Your task to perform on an android device: Empty the shopping cart on bestbuy. Search for "beats solo 3" on bestbuy, select the first entry, and add it to the cart. Image 0: 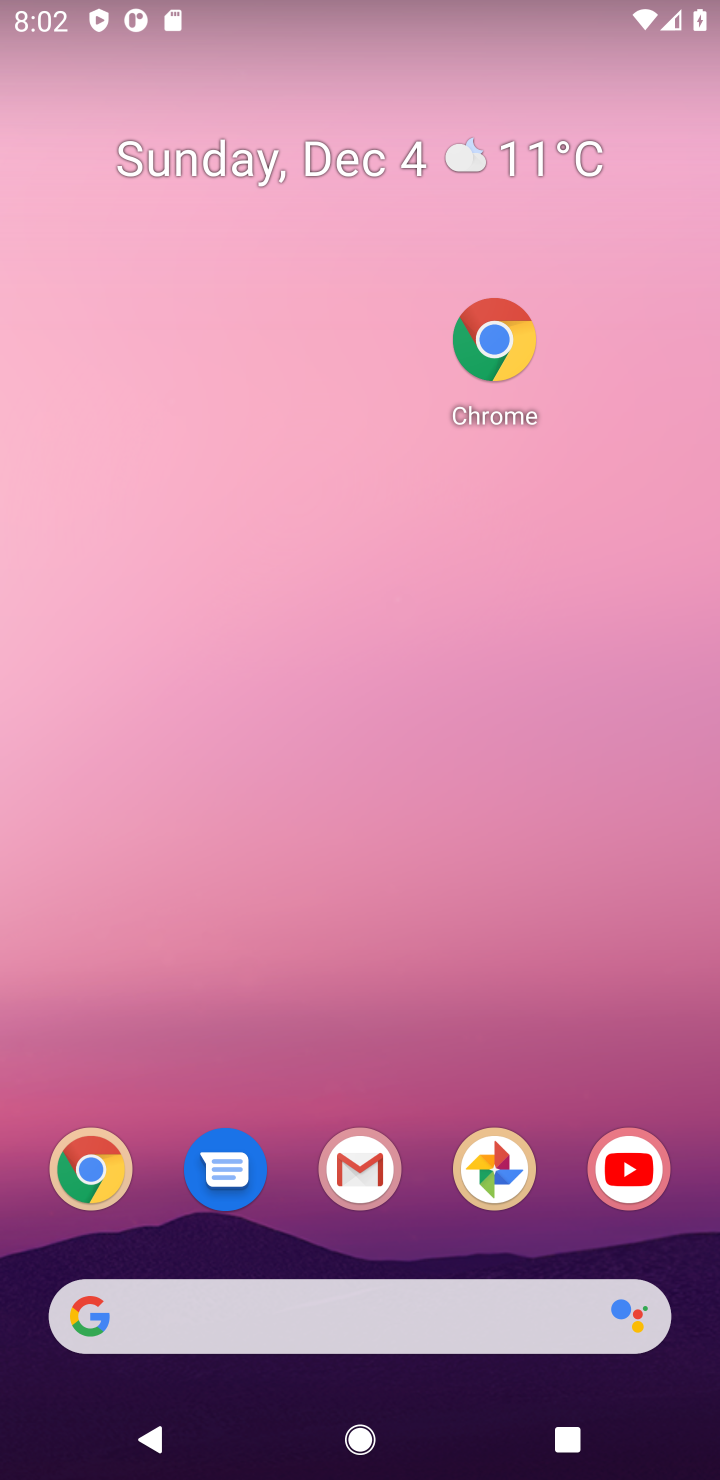
Step 0: drag from (466, 1399) to (635, 53)
Your task to perform on an android device: Empty the shopping cart on bestbuy. Search for "beats solo 3" on bestbuy, select the first entry, and add it to the cart. Image 1: 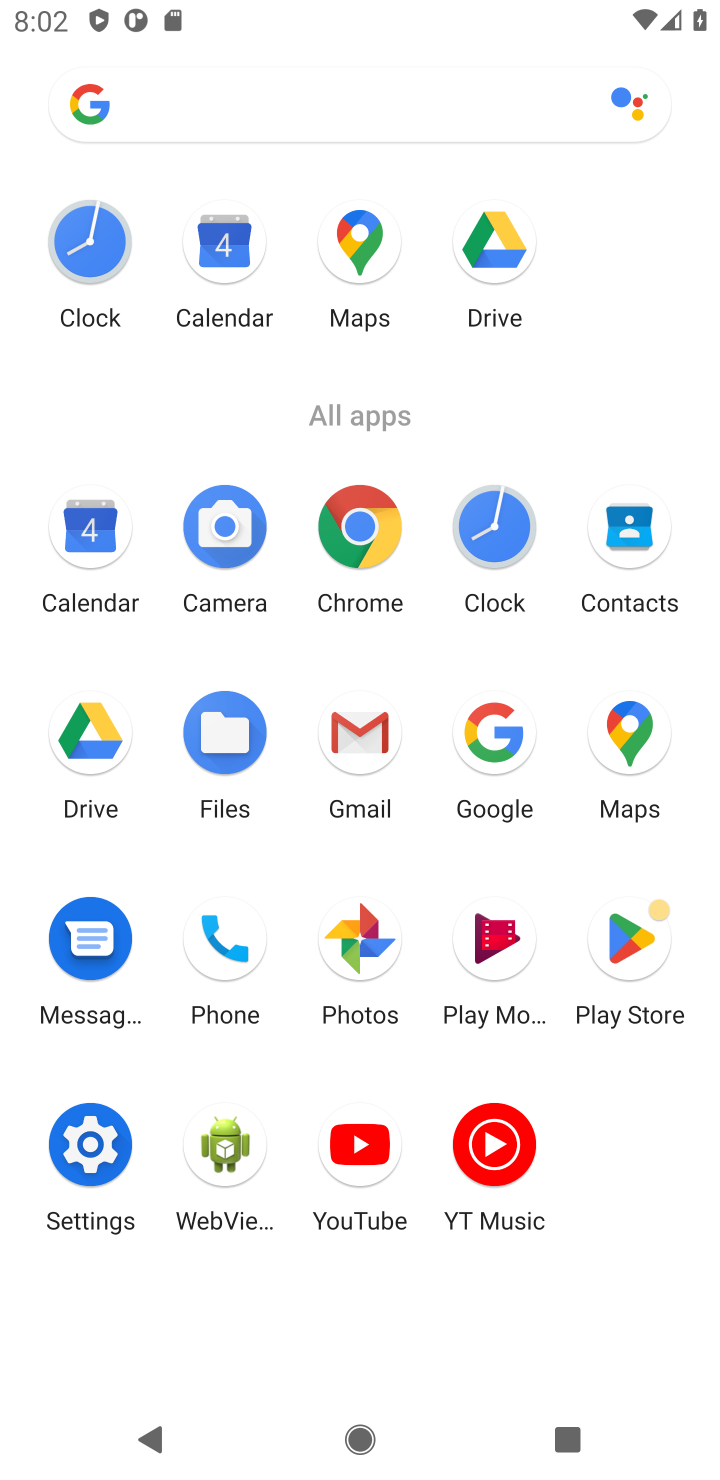
Step 1: click (362, 516)
Your task to perform on an android device: Empty the shopping cart on bestbuy. Search for "beats solo 3" on bestbuy, select the first entry, and add it to the cart. Image 2: 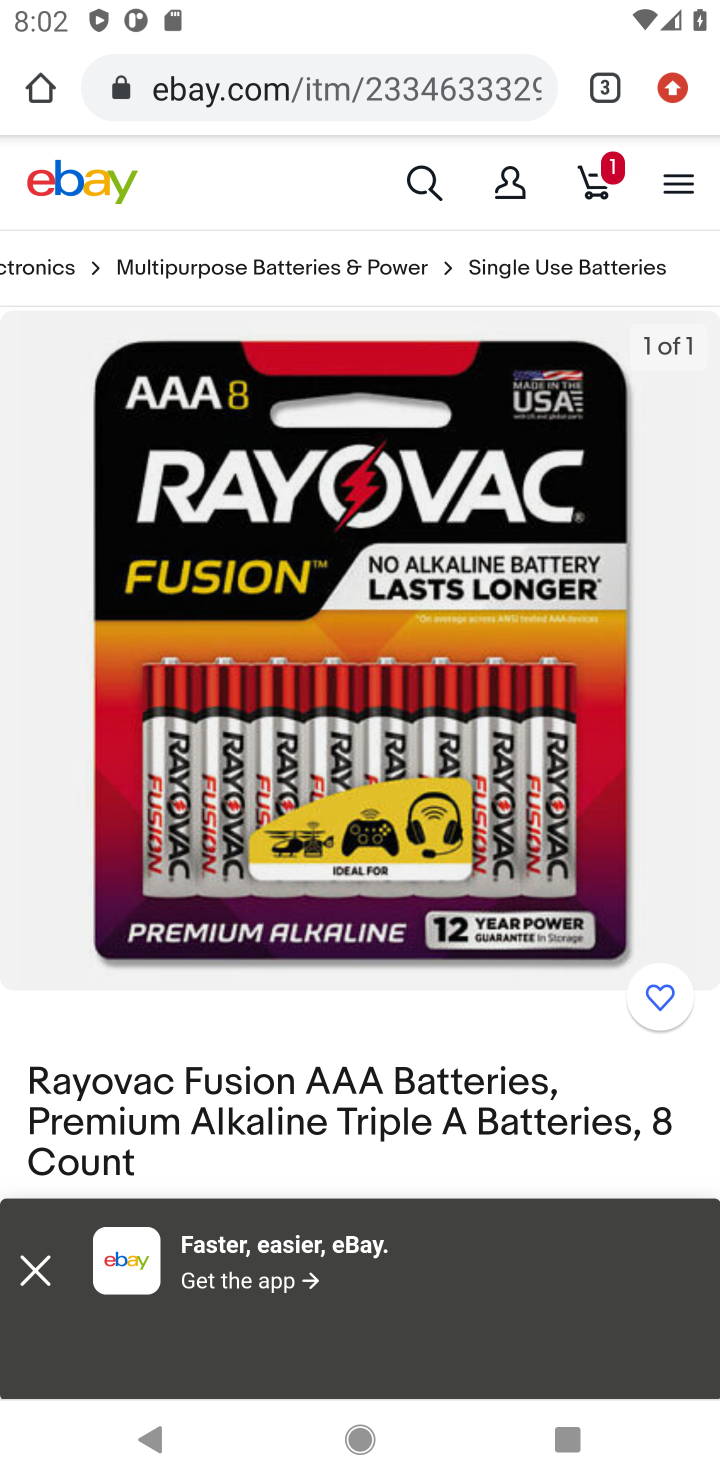
Step 2: click (361, 91)
Your task to perform on an android device: Empty the shopping cart on bestbuy. Search for "beats solo 3" on bestbuy, select the first entry, and add it to the cart. Image 3: 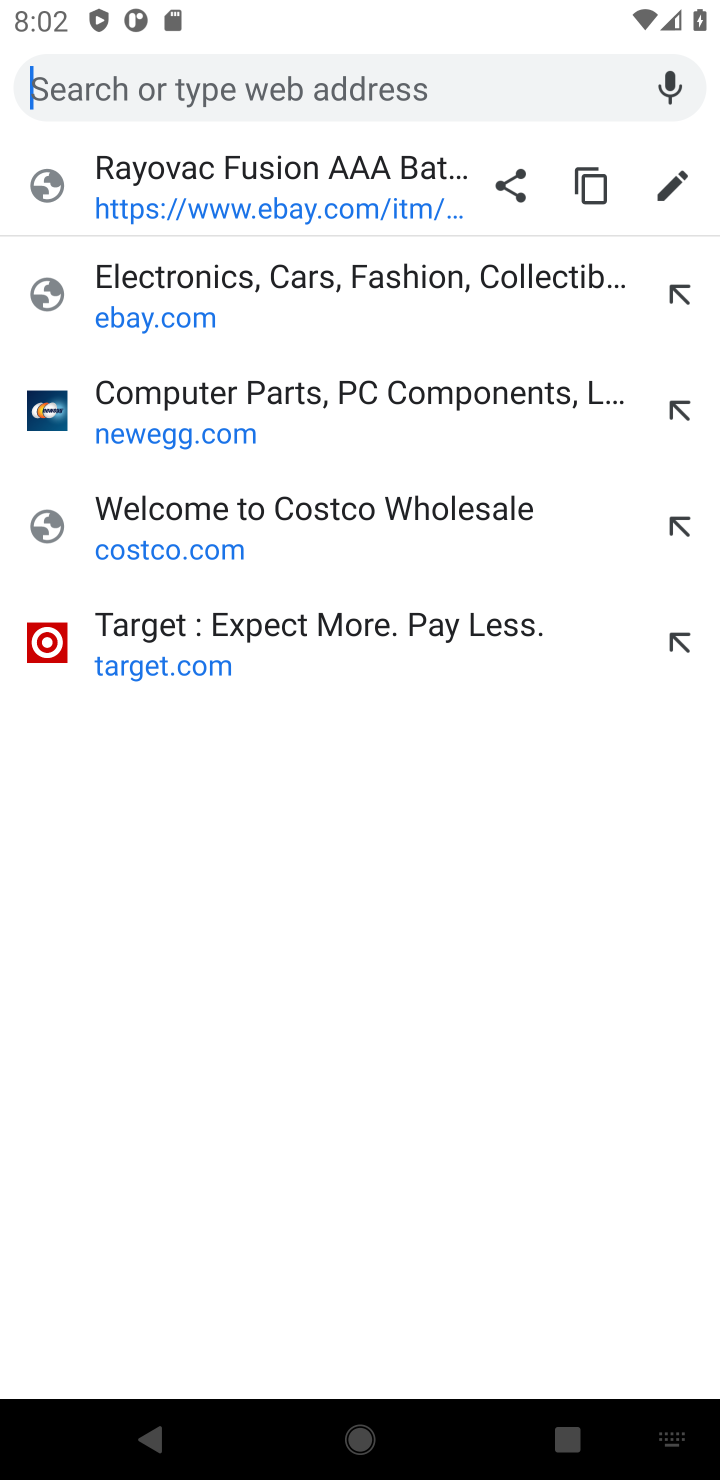
Step 3: type " bestbuy"
Your task to perform on an android device: Empty the shopping cart on bestbuy. Search for "beats solo 3" on bestbuy, select the first entry, and add it to the cart. Image 4: 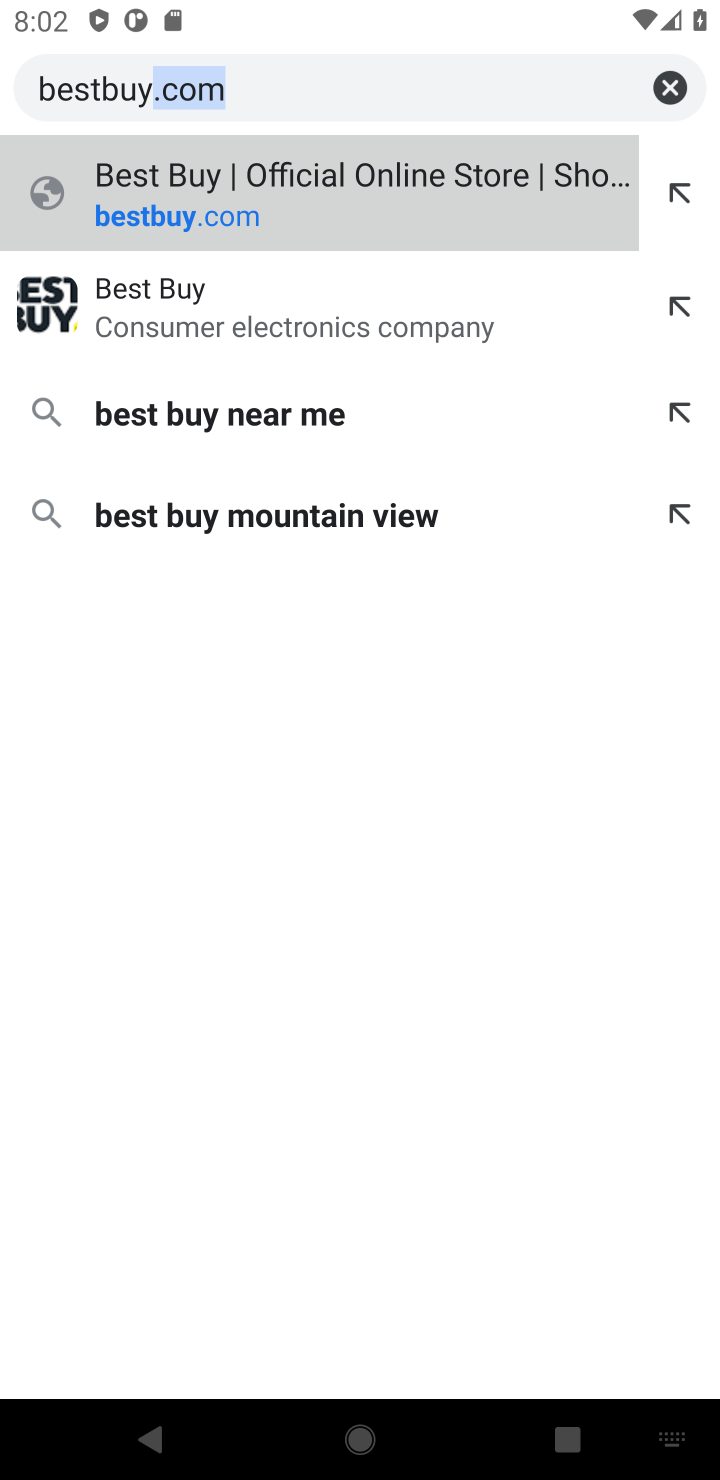
Step 4: type ""
Your task to perform on an android device: Empty the shopping cart on bestbuy. Search for "beats solo 3" on bestbuy, select the first entry, and add it to the cart. Image 5: 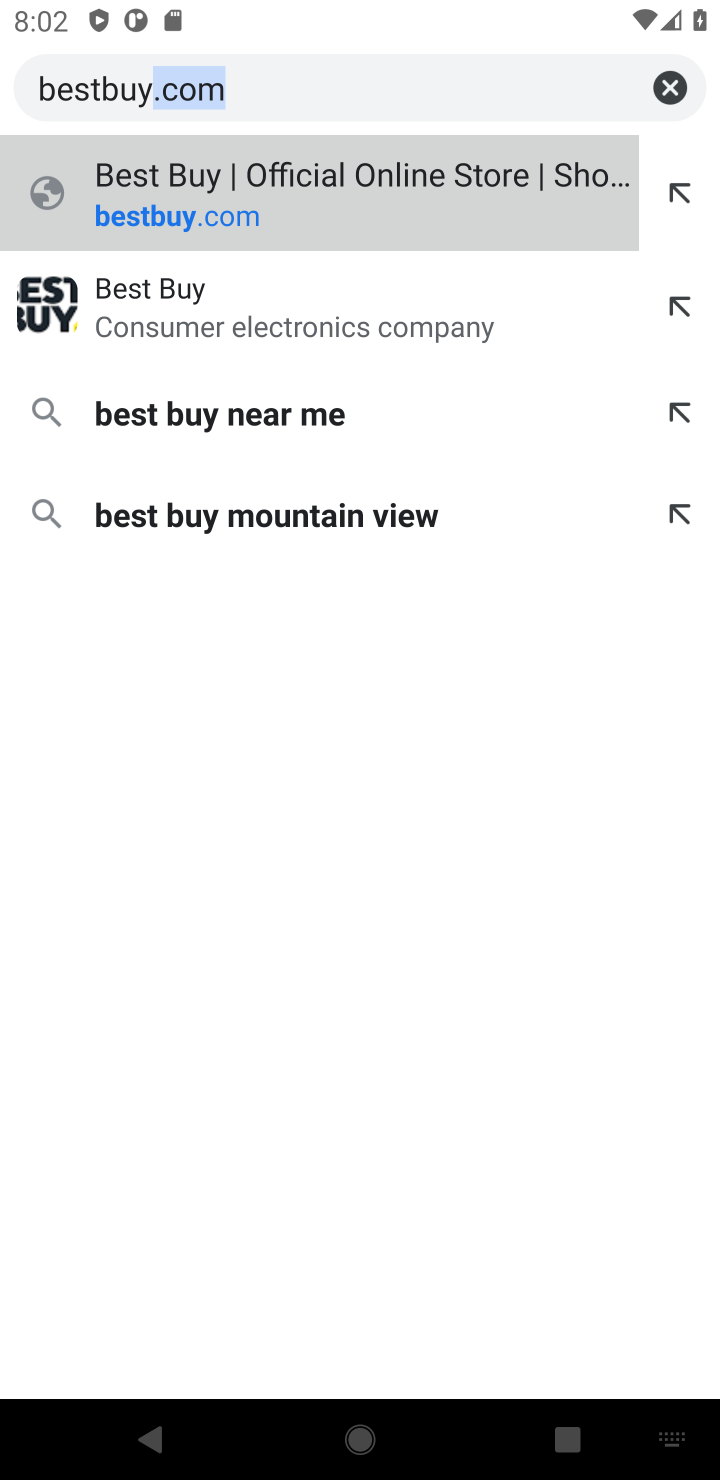
Step 5: click (211, 211)
Your task to perform on an android device: Empty the shopping cart on bestbuy. Search for "beats solo 3" on bestbuy, select the first entry, and add it to the cart. Image 6: 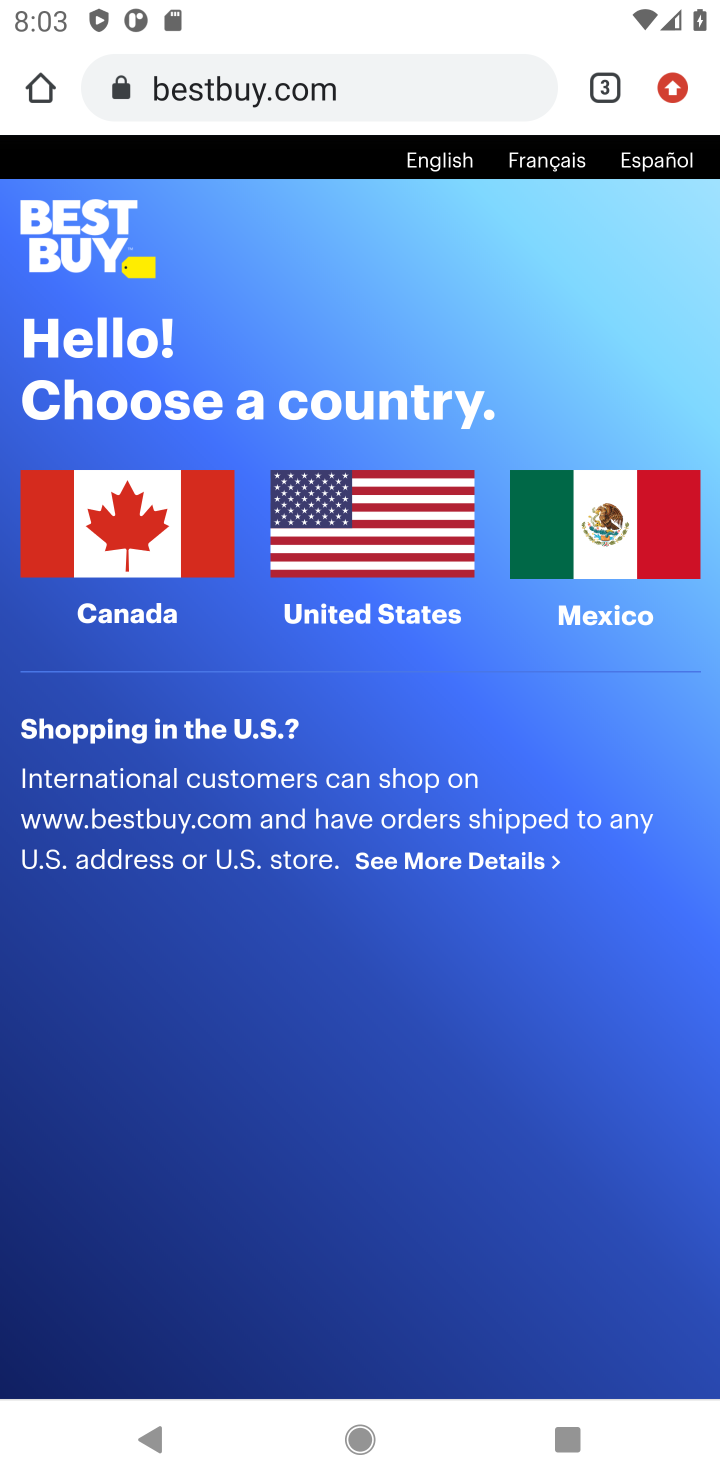
Step 6: click (445, 545)
Your task to perform on an android device: Empty the shopping cart on bestbuy. Search for "beats solo 3" on bestbuy, select the first entry, and add it to the cart. Image 7: 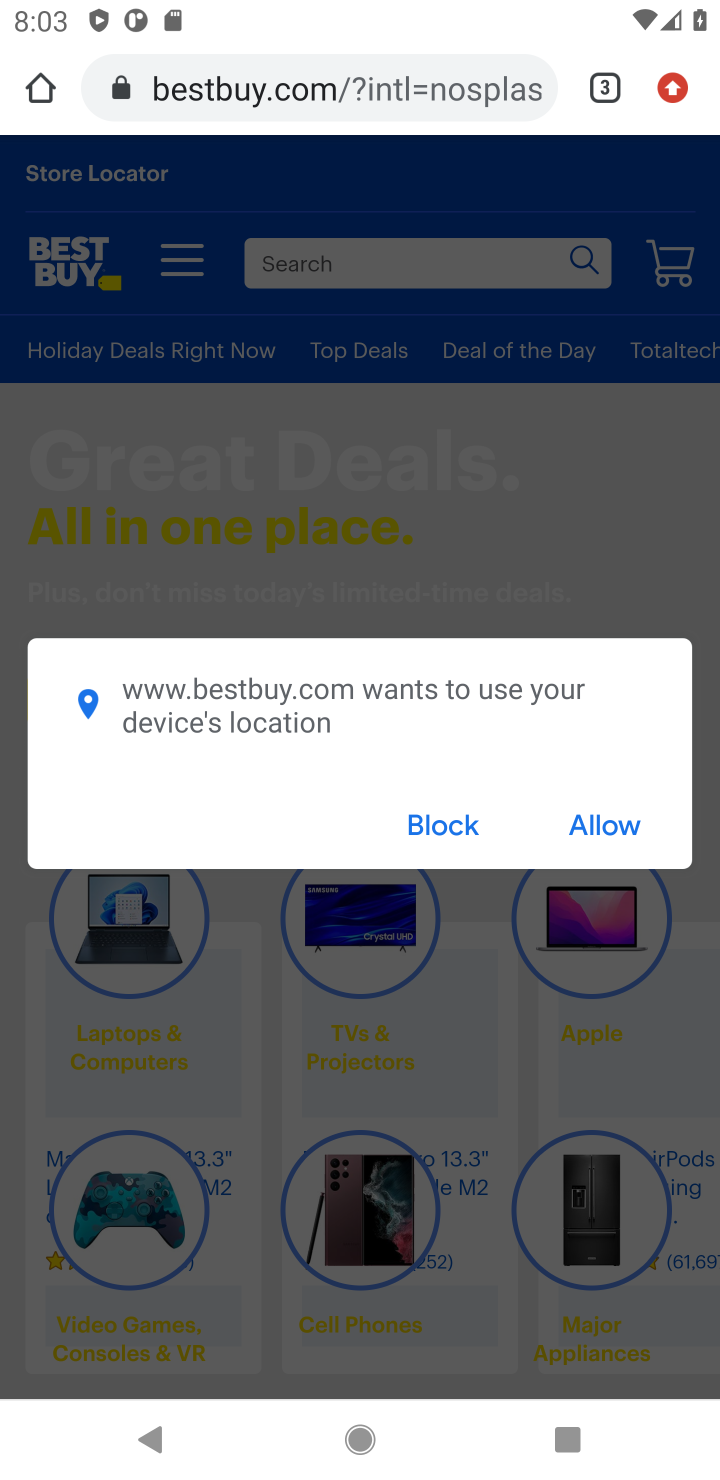
Step 7: click (609, 812)
Your task to perform on an android device: Empty the shopping cart on bestbuy. Search for "beats solo 3" on bestbuy, select the first entry, and add it to the cart. Image 8: 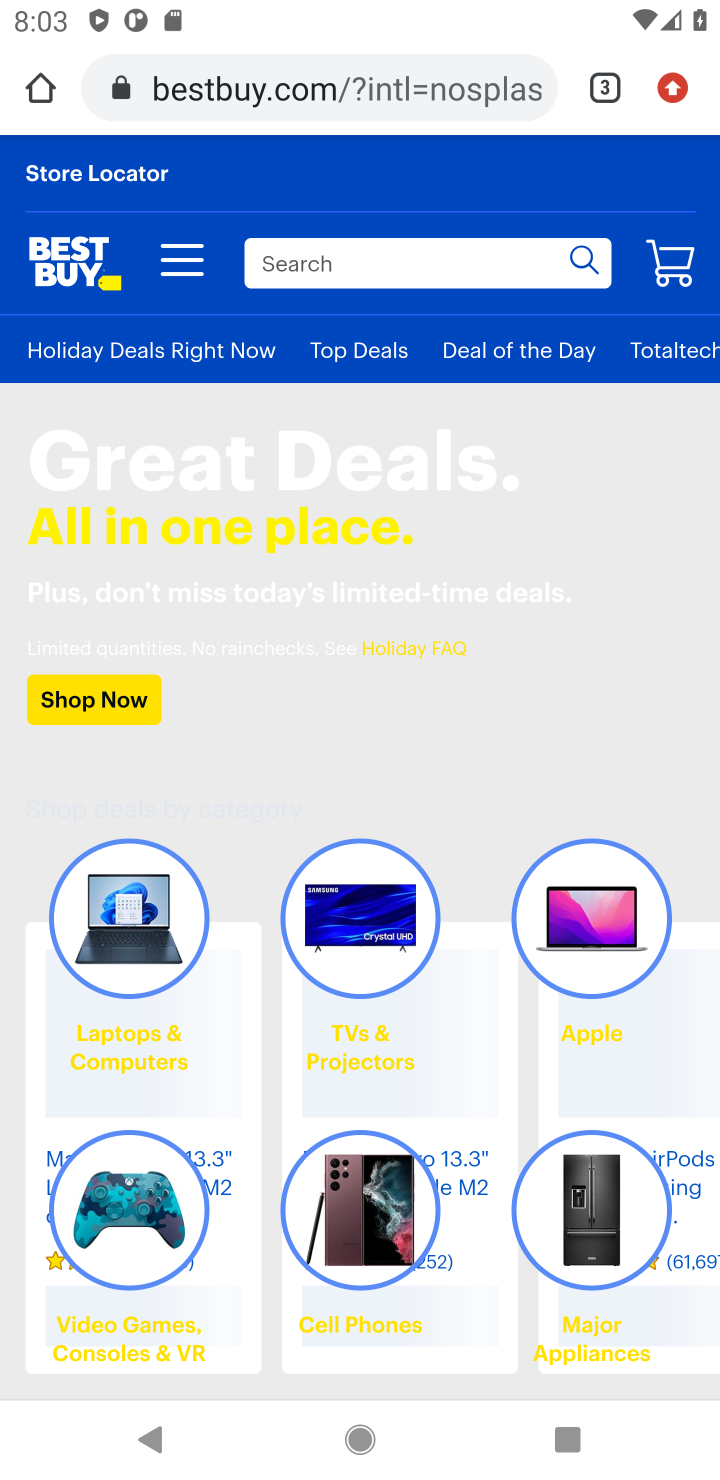
Step 8: click (676, 274)
Your task to perform on an android device: Empty the shopping cart on bestbuy. Search for "beats solo 3" on bestbuy, select the first entry, and add it to the cart. Image 9: 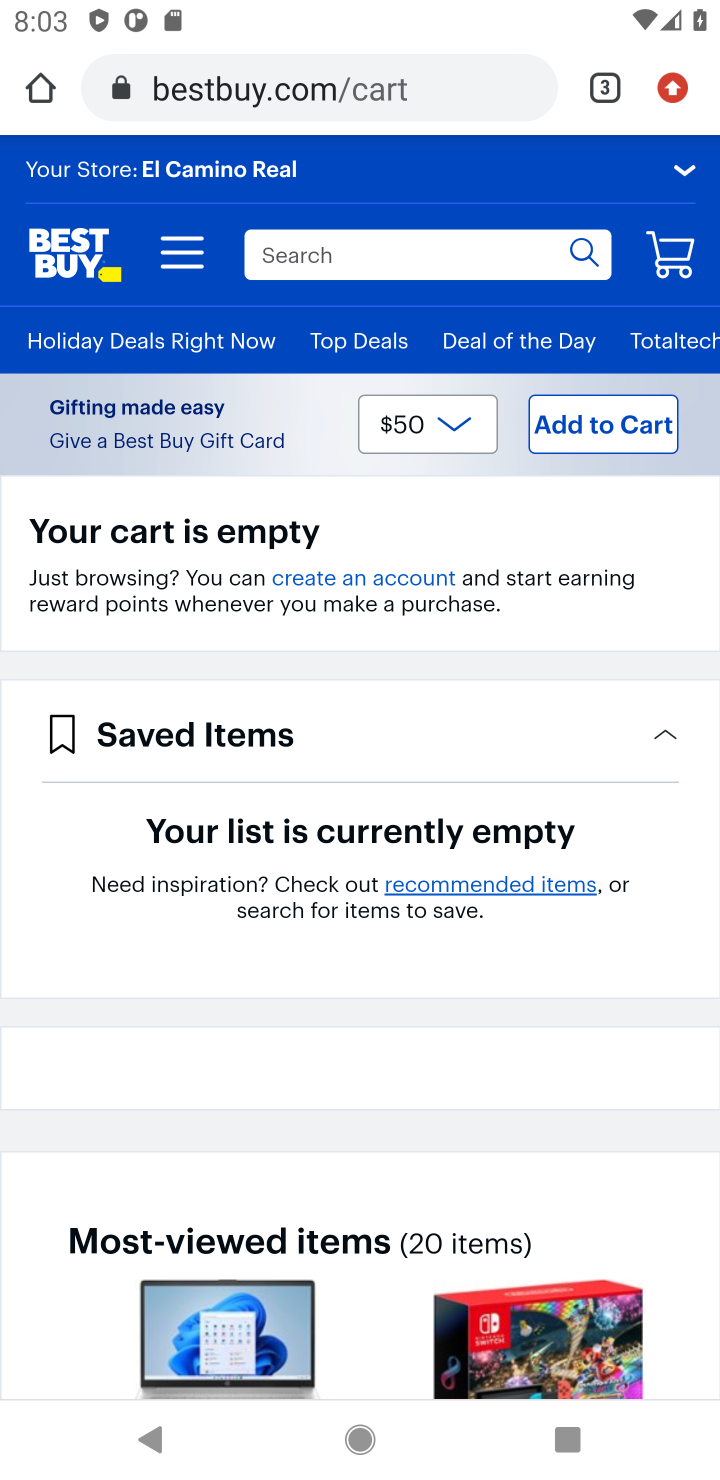
Step 9: drag from (404, 1102) to (404, 594)
Your task to perform on an android device: Empty the shopping cart on bestbuy. Search for "beats solo 3" on bestbuy, select the first entry, and add it to the cart. Image 10: 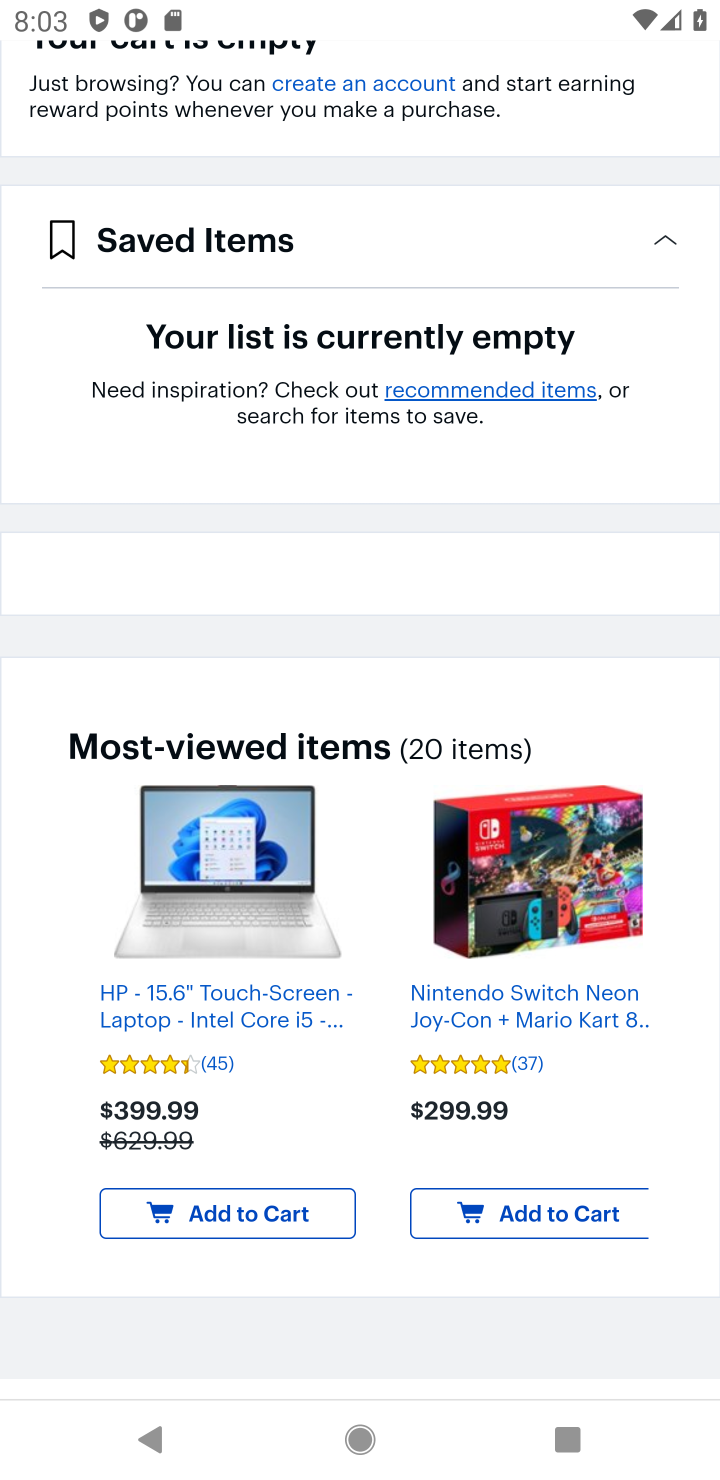
Step 10: drag from (357, 442) to (354, 1108)
Your task to perform on an android device: Empty the shopping cart on bestbuy. Search for "beats solo 3" on bestbuy, select the first entry, and add it to the cart. Image 11: 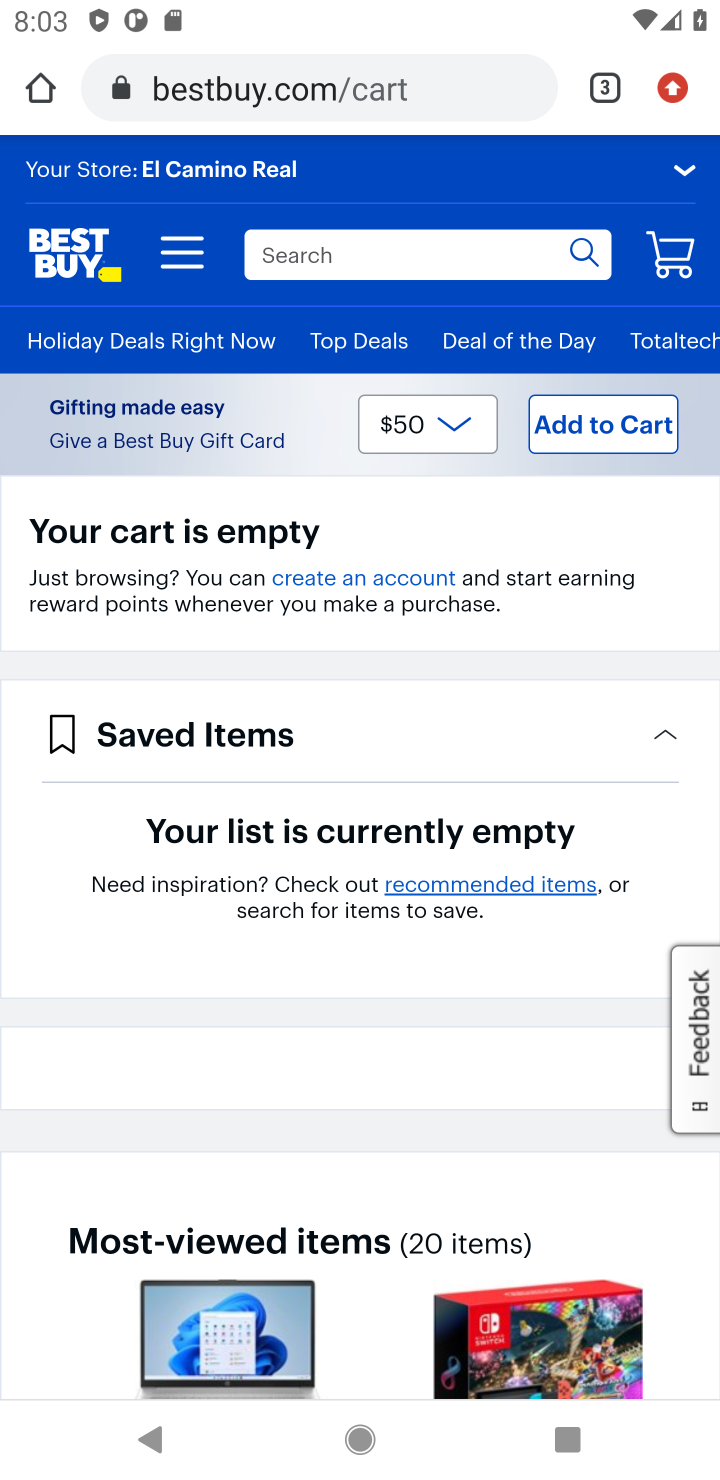
Step 11: click (364, 260)
Your task to perform on an android device: Empty the shopping cart on bestbuy. Search for "beats solo 3" on bestbuy, select the first entry, and add it to the cart. Image 12: 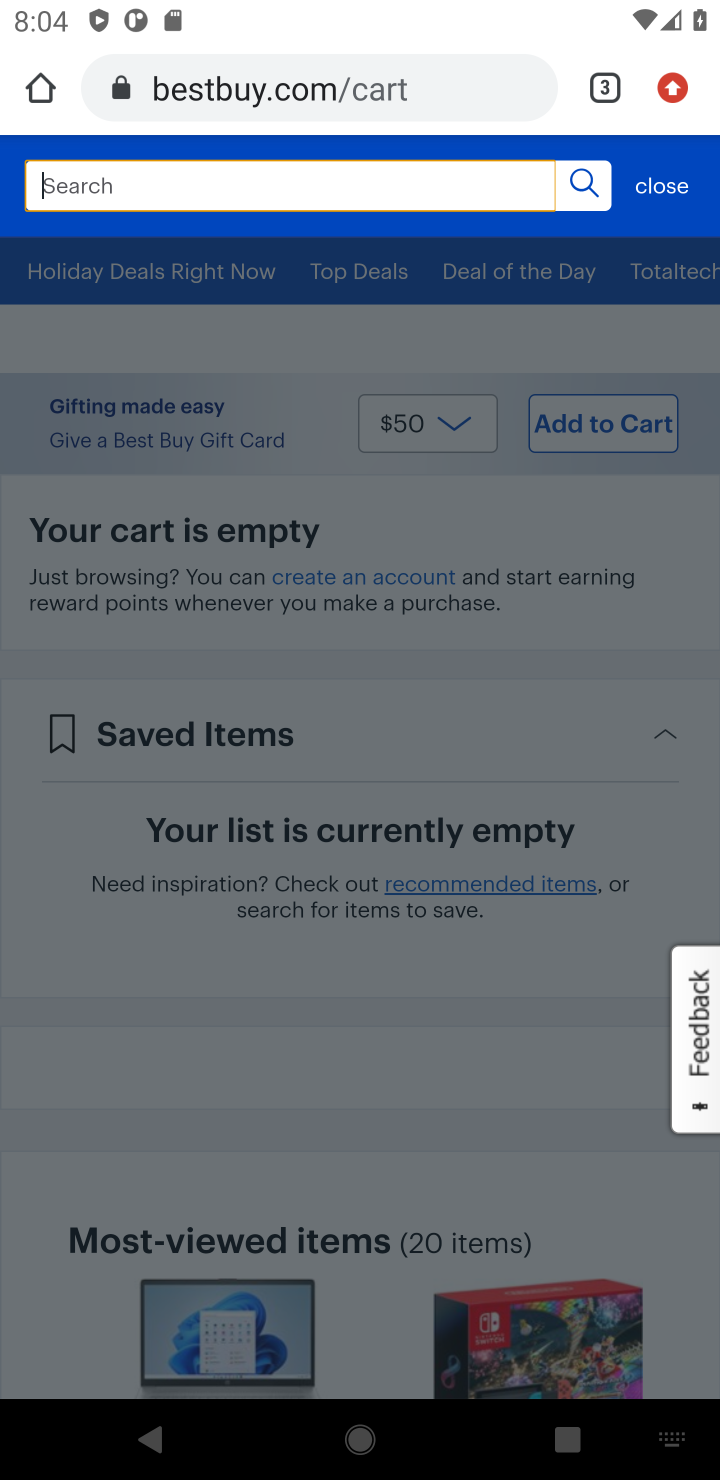
Step 12: type "beats solo 3"
Your task to perform on an android device: Empty the shopping cart on bestbuy. Search for "beats solo 3" on bestbuy, select the first entry, and add it to the cart. Image 13: 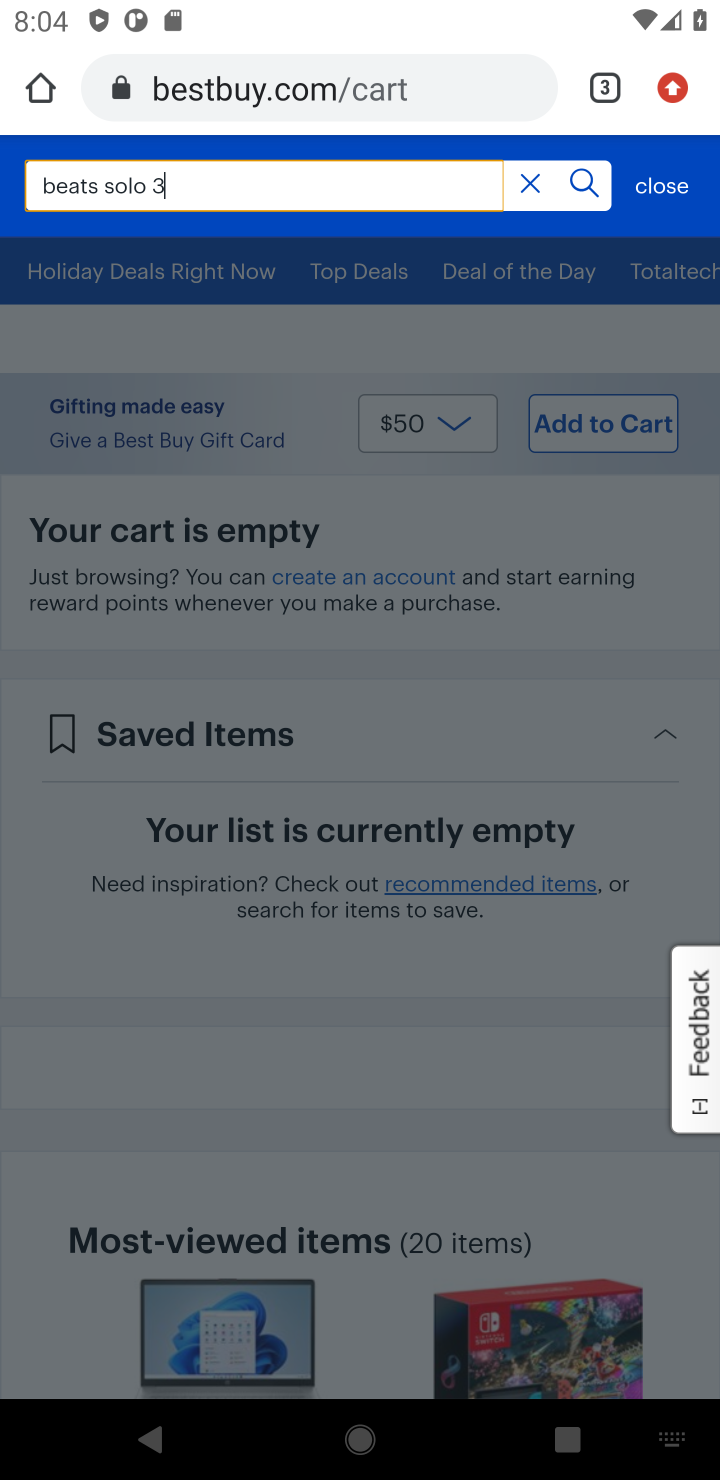
Step 13: type ""
Your task to perform on an android device: Empty the shopping cart on bestbuy. Search for "beats solo 3" on bestbuy, select the first entry, and add it to the cart. Image 14: 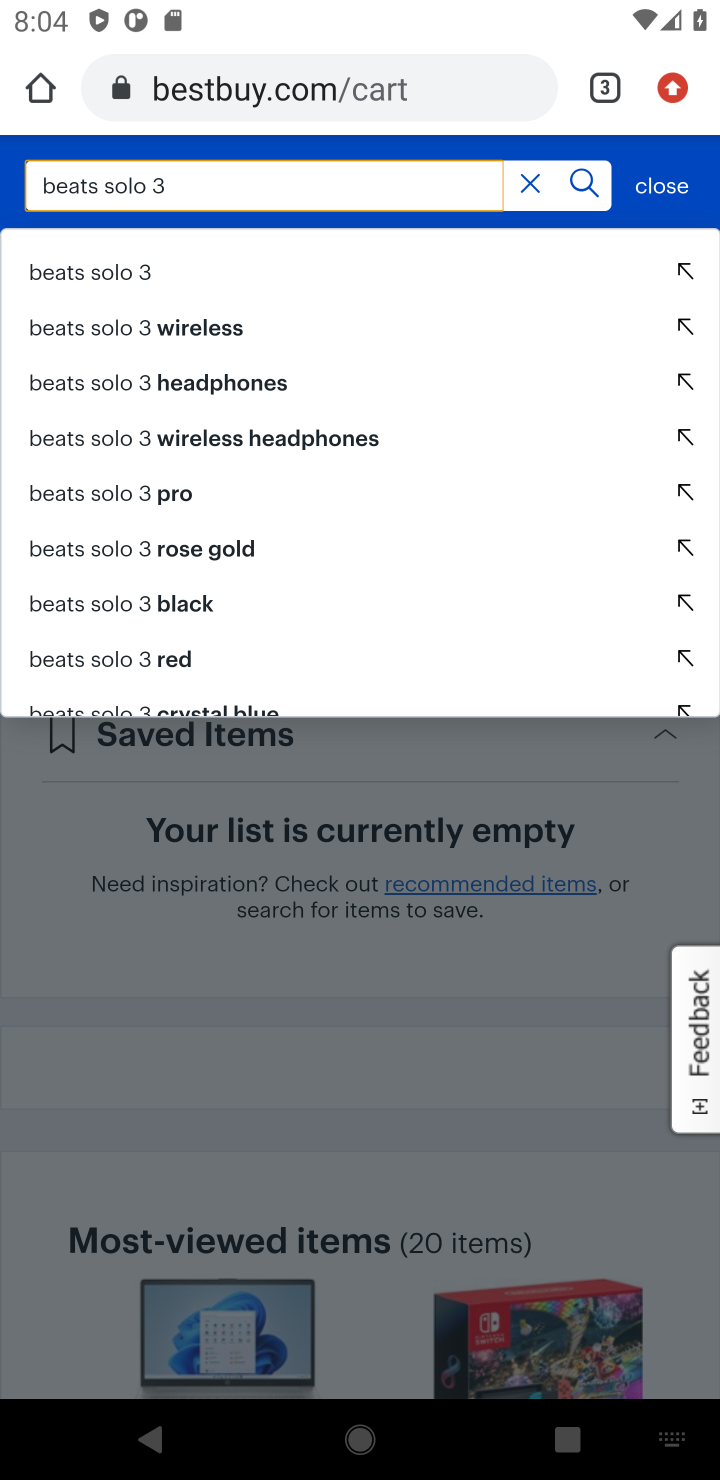
Step 14: click (85, 266)
Your task to perform on an android device: Empty the shopping cart on bestbuy. Search for "beats solo 3" on bestbuy, select the first entry, and add it to the cart. Image 15: 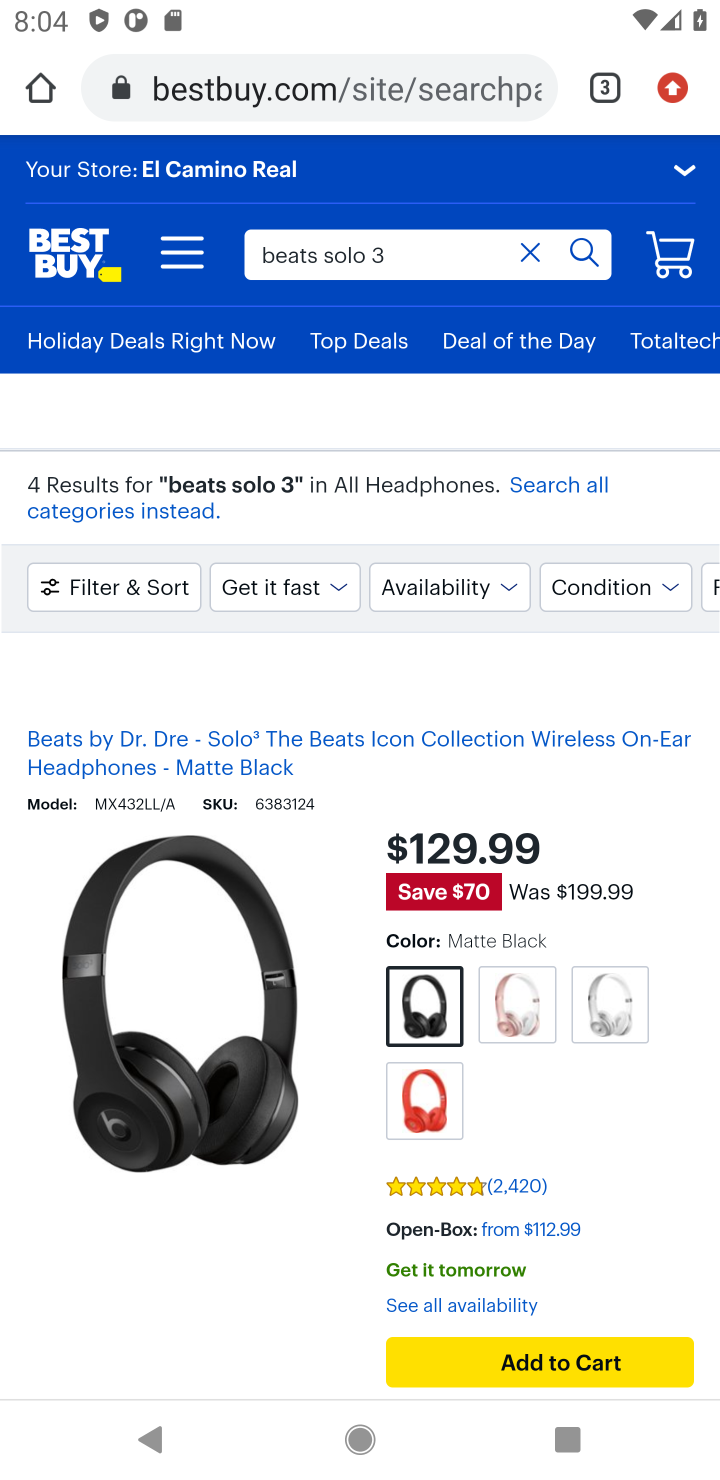
Step 15: drag from (269, 1072) to (337, 588)
Your task to perform on an android device: Empty the shopping cart on bestbuy. Search for "beats solo 3" on bestbuy, select the first entry, and add it to the cart. Image 16: 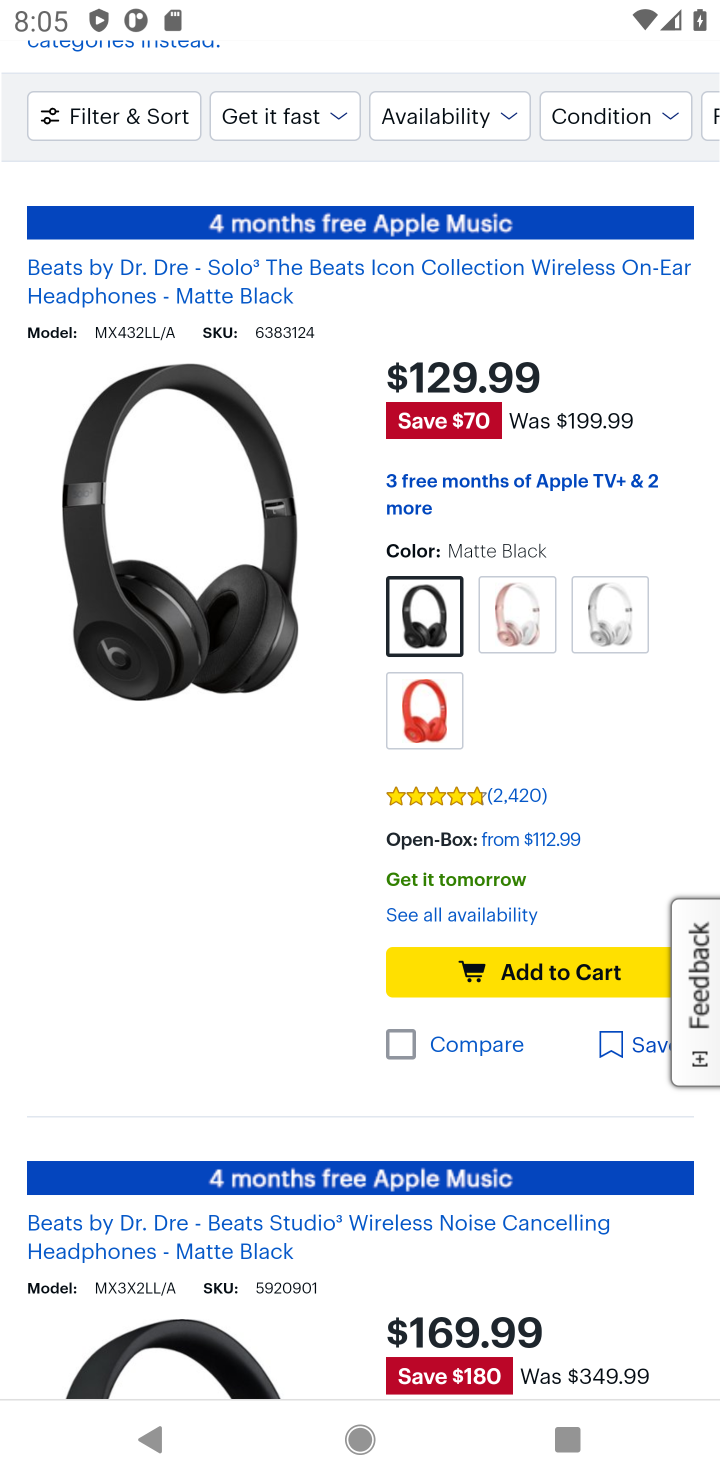
Step 16: click (511, 977)
Your task to perform on an android device: Empty the shopping cart on bestbuy. Search for "beats solo 3" on bestbuy, select the first entry, and add it to the cart. Image 17: 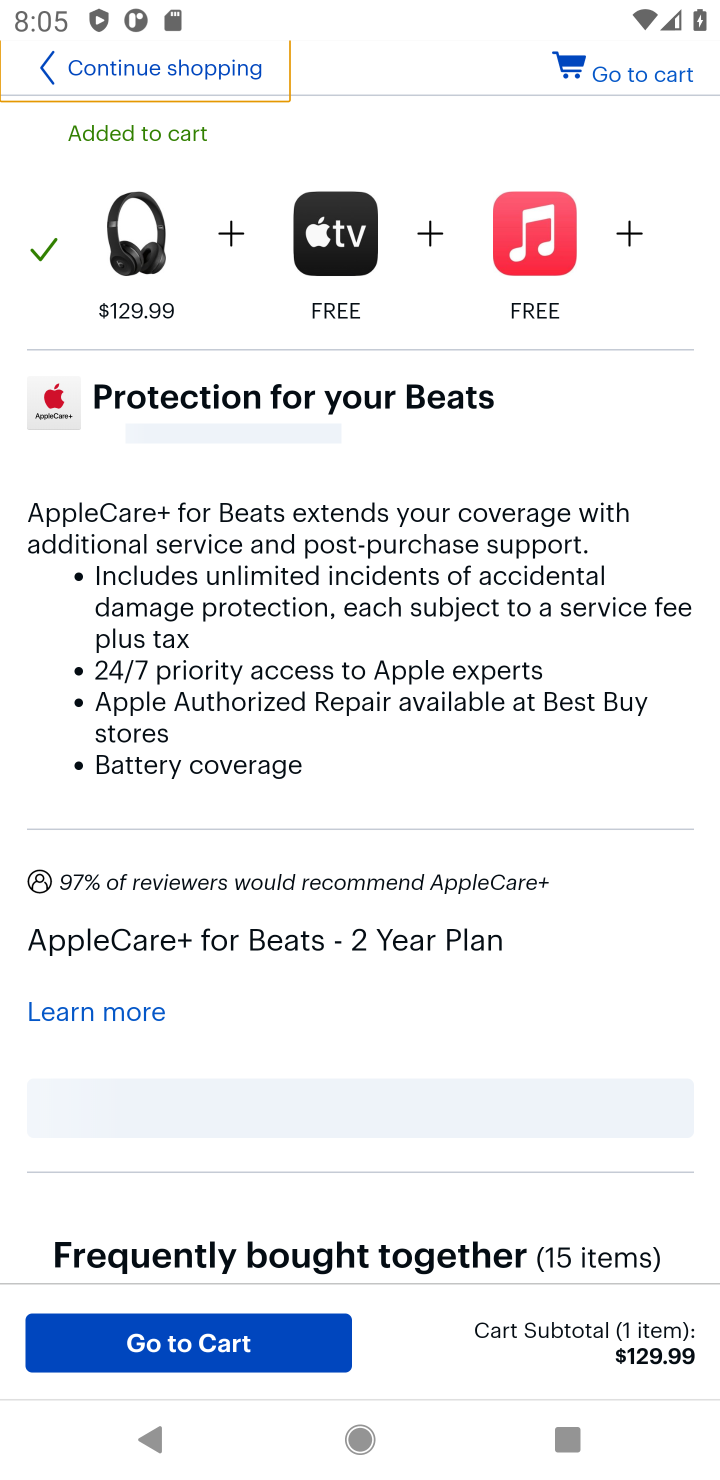
Step 17: task complete